Your task to perform on an android device: check battery use Image 0: 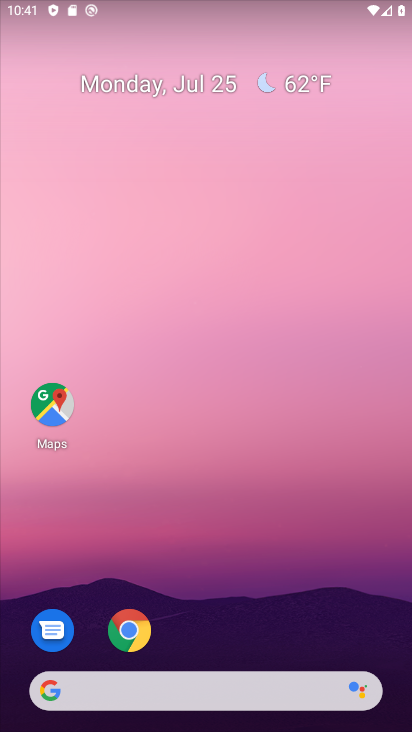
Step 0: drag from (189, 568) to (183, 172)
Your task to perform on an android device: check battery use Image 1: 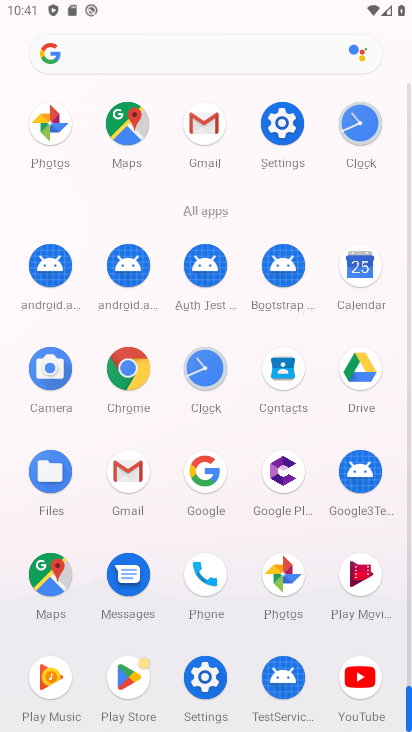
Step 1: click (199, 694)
Your task to perform on an android device: check battery use Image 2: 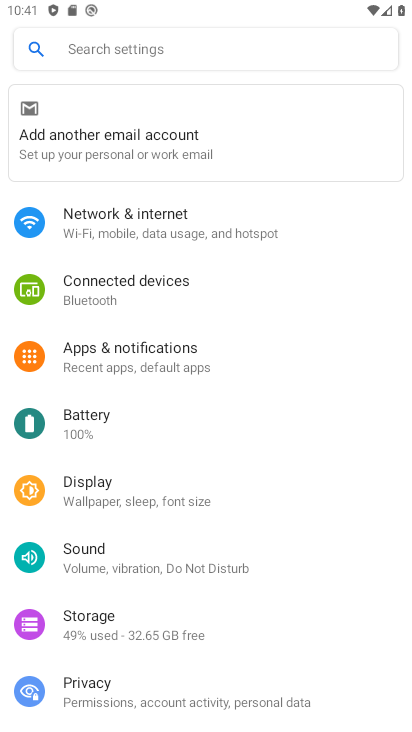
Step 2: click (128, 418)
Your task to perform on an android device: check battery use Image 3: 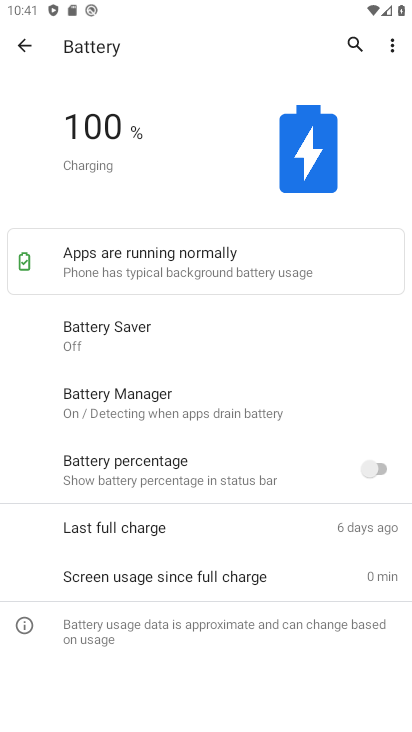
Step 3: drag from (391, 44) to (354, 49)
Your task to perform on an android device: check battery use Image 4: 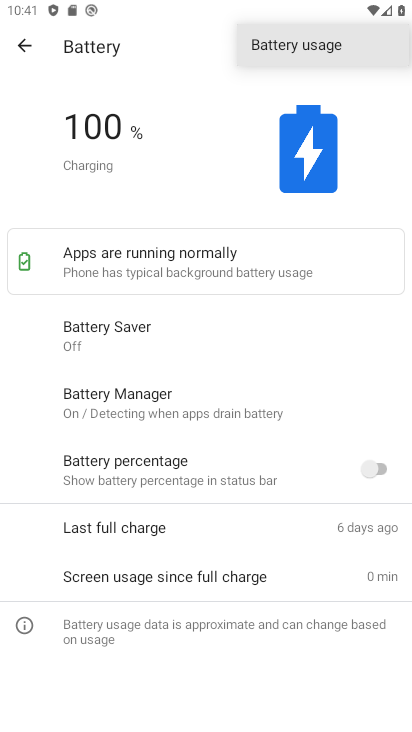
Step 4: click (352, 46)
Your task to perform on an android device: check battery use Image 5: 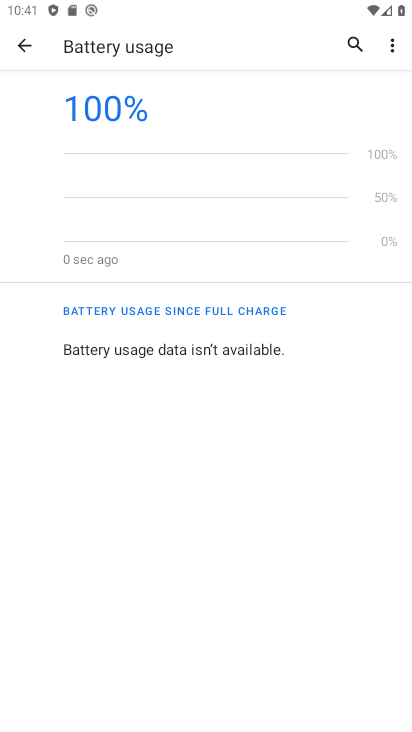
Step 5: task complete